Your task to perform on an android device: Open Chrome and go to the settings page Image 0: 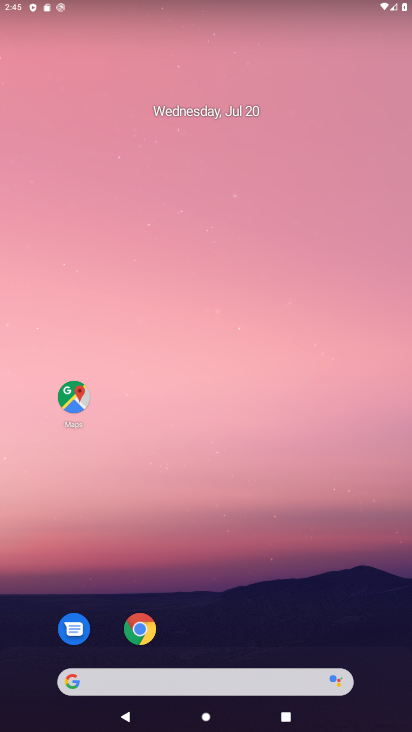
Step 0: click (142, 623)
Your task to perform on an android device: Open Chrome and go to the settings page Image 1: 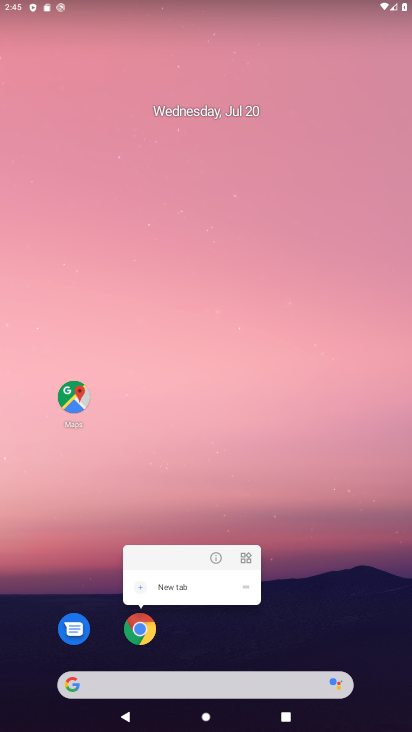
Step 1: click (142, 625)
Your task to perform on an android device: Open Chrome and go to the settings page Image 2: 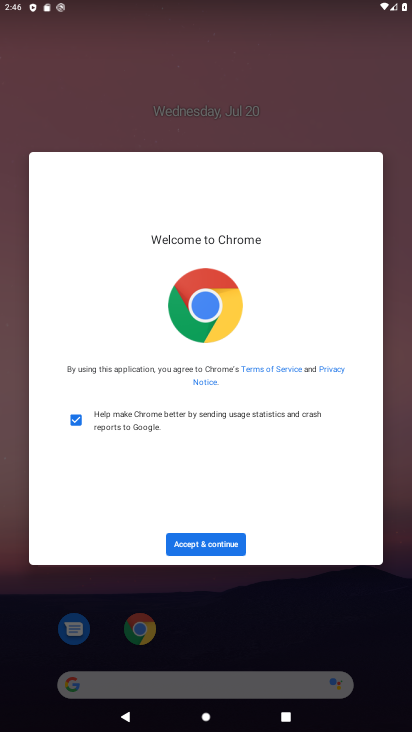
Step 2: click (238, 540)
Your task to perform on an android device: Open Chrome and go to the settings page Image 3: 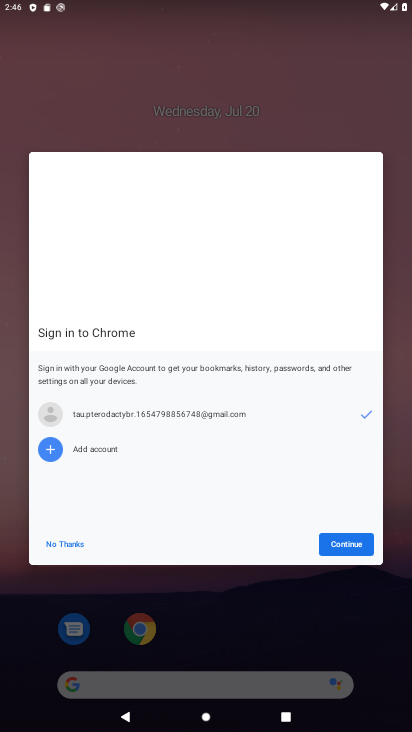
Step 3: click (350, 540)
Your task to perform on an android device: Open Chrome and go to the settings page Image 4: 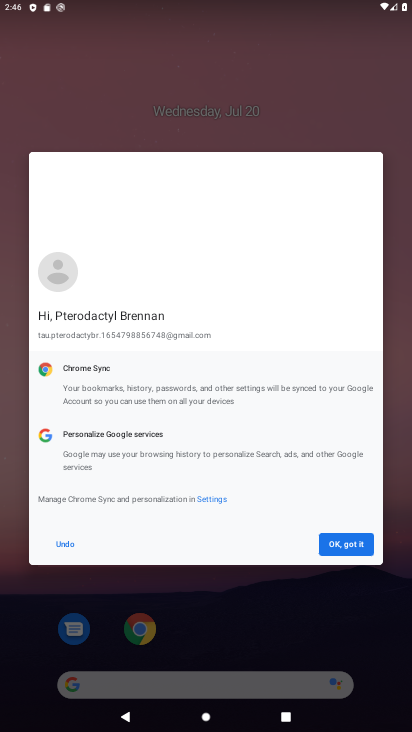
Step 4: click (344, 551)
Your task to perform on an android device: Open Chrome and go to the settings page Image 5: 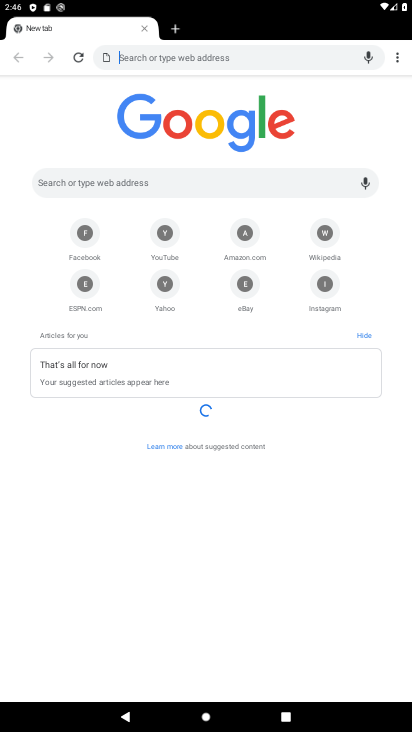
Step 5: task complete